Your task to perform on an android device: turn on notifications settings in the gmail app Image 0: 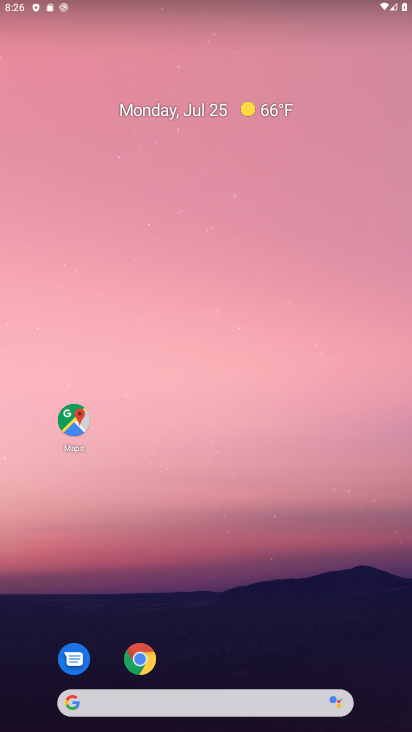
Step 0: drag from (219, 710) to (194, 231)
Your task to perform on an android device: turn on notifications settings in the gmail app Image 1: 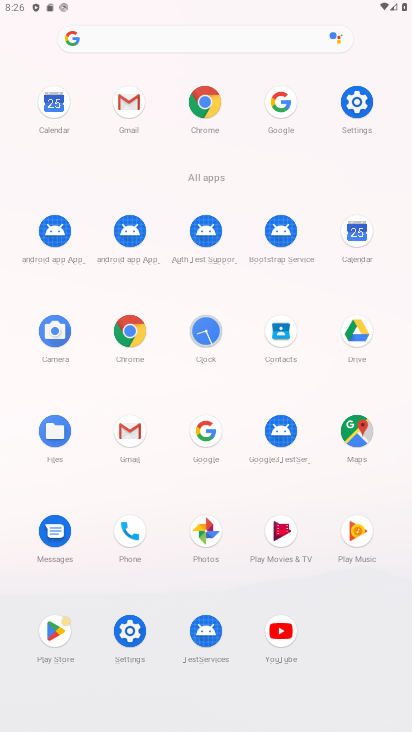
Step 1: click (129, 435)
Your task to perform on an android device: turn on notifications settings in the gmail app Image 2: 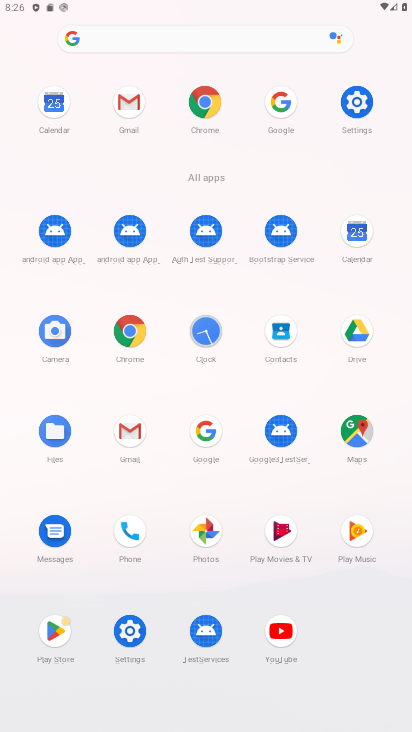
Step 2: click (141, 426)
Your task to perform on an android device: turn on notifications settings in the gmail app Image 3: 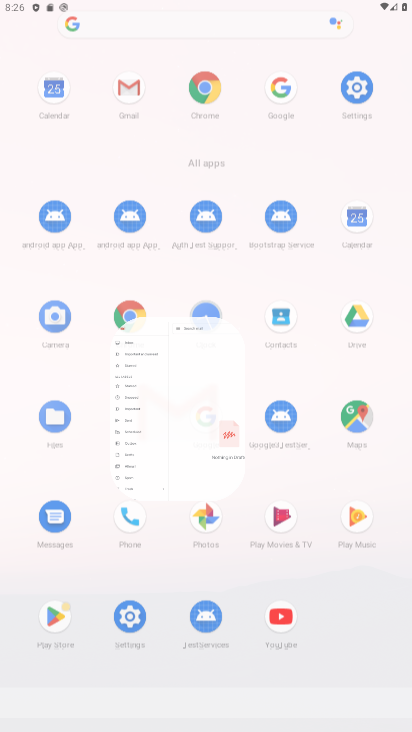
Step 3: click (143, 427)
Your task to perform on an android device: turn on notifications settings in the gmail app Image 4: 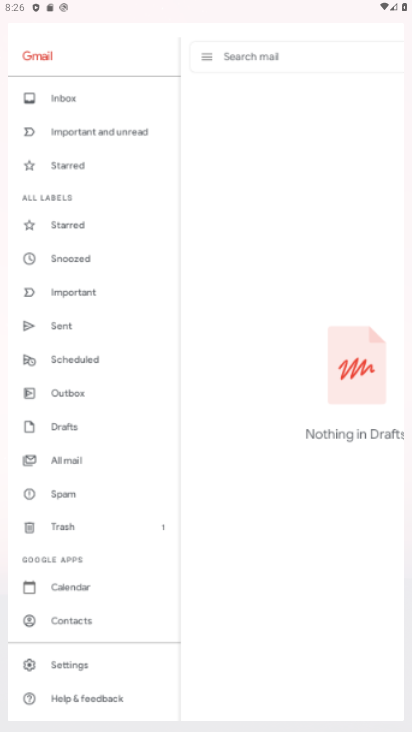
Step 4: click (145, 430)
Your task to perform on an android device: turn on notifications settings in the gmail app Image 5: 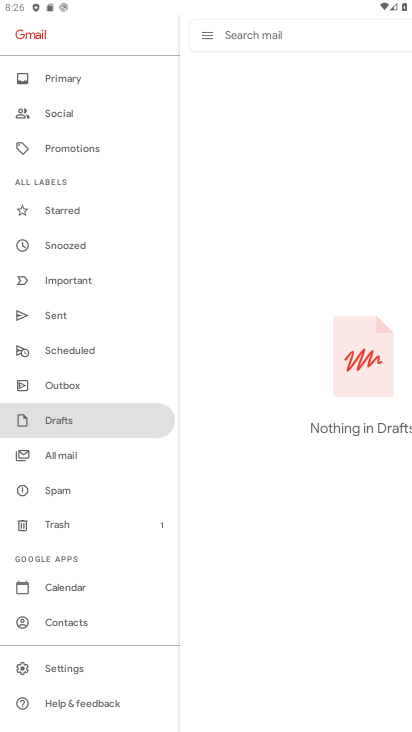
Step 5: click (63, 666)
Your task to perform on an android device: turn on notifications settings in the gmail app Image 6: 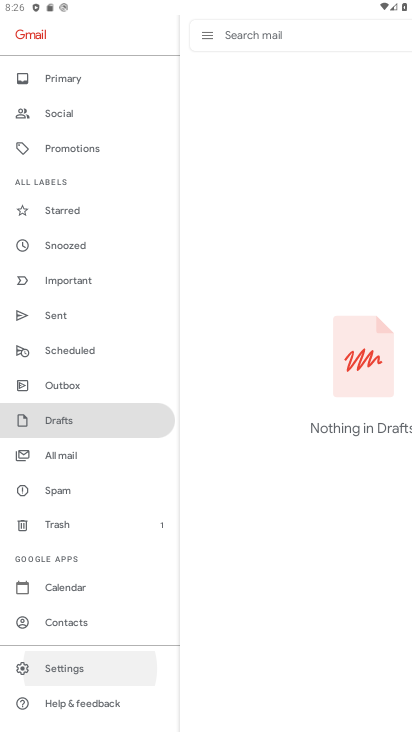
Step 6: click (69, 666)
Your task to perform on an android device: turn on notifications settings in the gmail app Image 7: 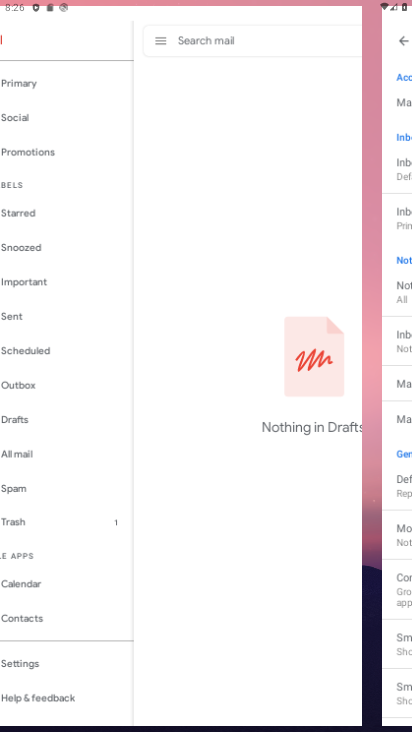
Step 7: click (69, 666)
Your task to perform on an android device: turn on notifications settings in the gmail app Image 8: 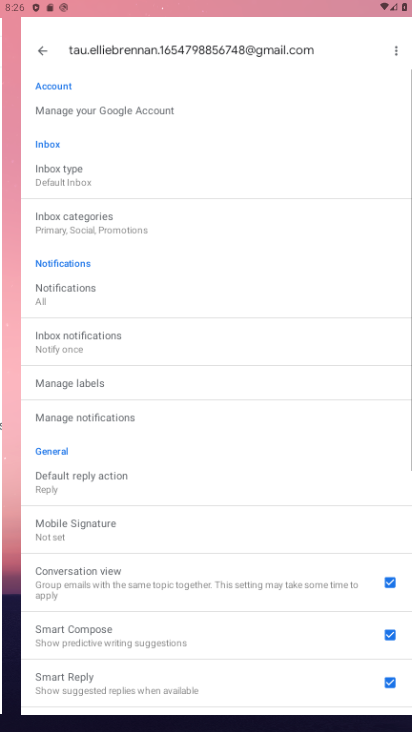
Step 8: click (73, 668)
Your task to perform on an android device: turn on notifications settings in the gmail app Image 9: 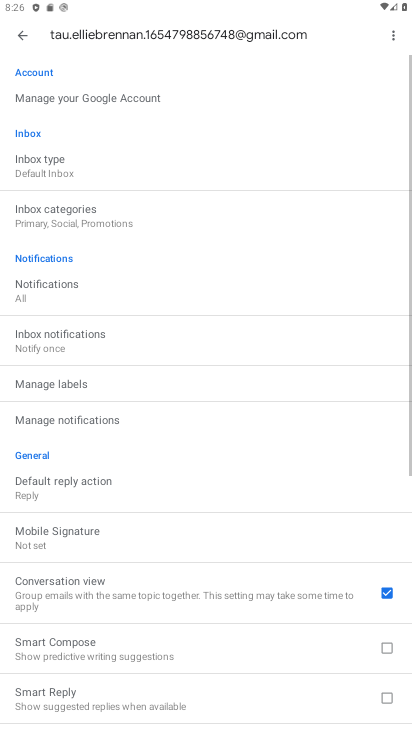
Step 9: click (30, 282)
Your task to perform on an android device: turn on notifications settings in the gmail app Image 10: 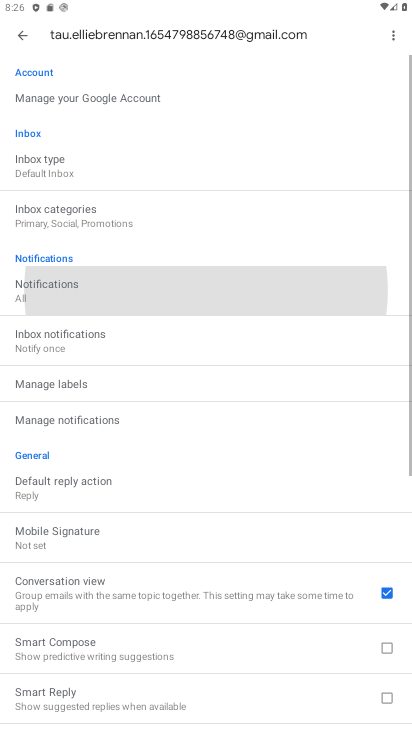
Step 10: click (38, 281)
Your task to perform on an android device: turn on notifications settings in the gmail app Image 11: 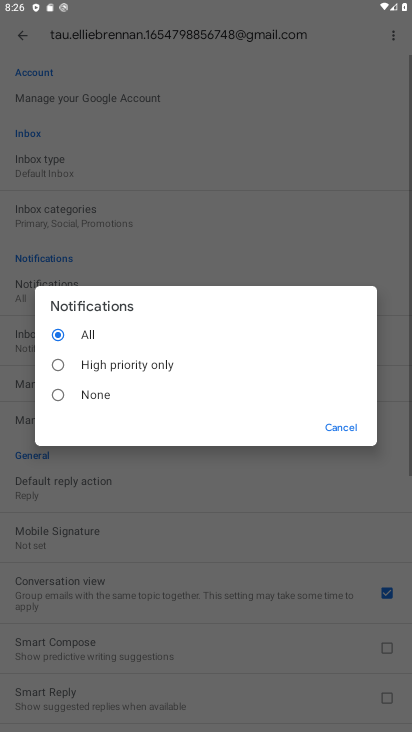
Step 11: click (65, 333)
Your task to perform on an android device: turn on notifications settings in the gmail app Image 12: 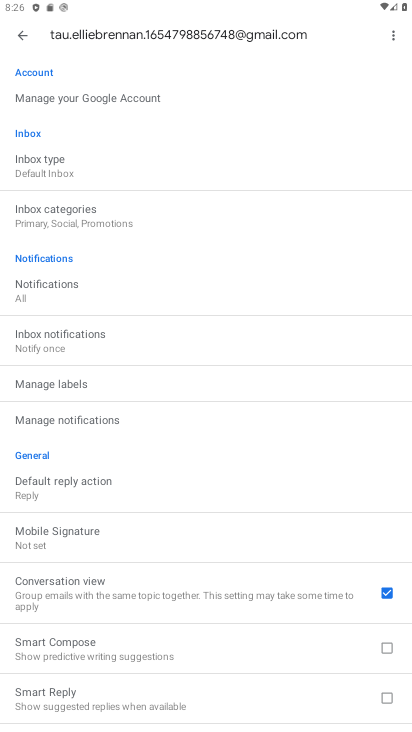
Step 12: task complete